Your task to perform on an android device: check google app version Image 0: 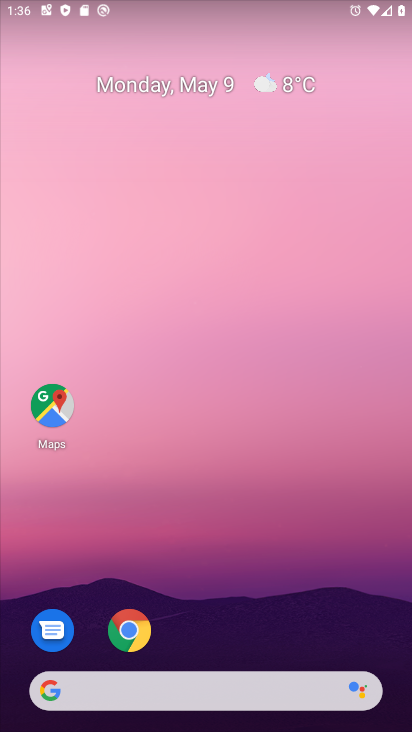
Step 0: drag from (277, 631) to (228, 71)
Your task to perform on an android device: check google app version Image 1: 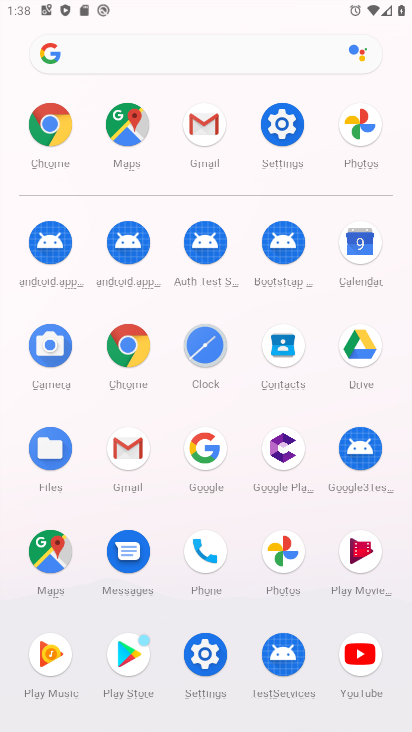
Step 1: click (201, 443)
Your task to perform on an android device: check google app version Image 2: 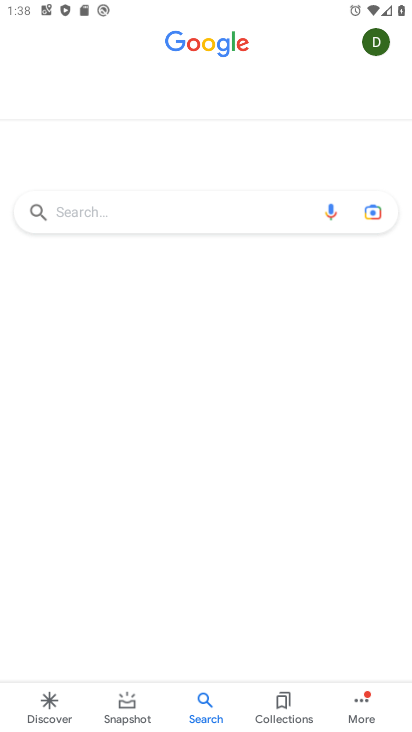
Step 2: press back button
Your task to perform on an android device: check google app version Image 3: 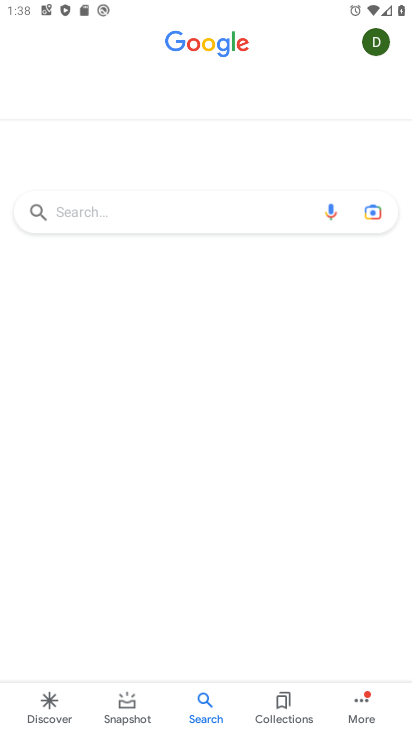
Step 3: press home button
Your task to perform on an android device: check google app version Image 4: 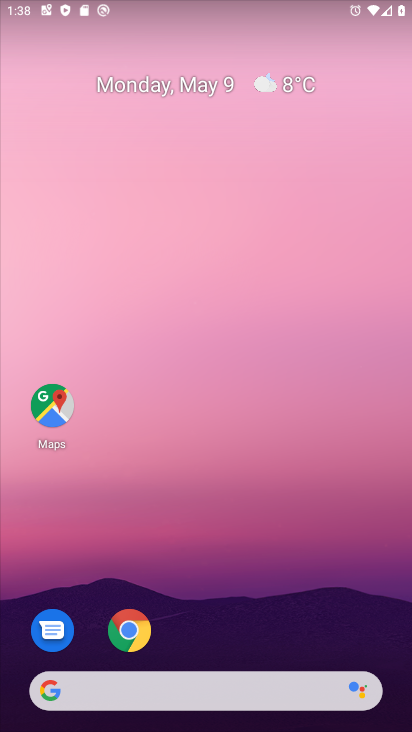
Step 4: drag from (226, 624) to (278, 60)
Your task to perform on an android device: check google app version Image 5: 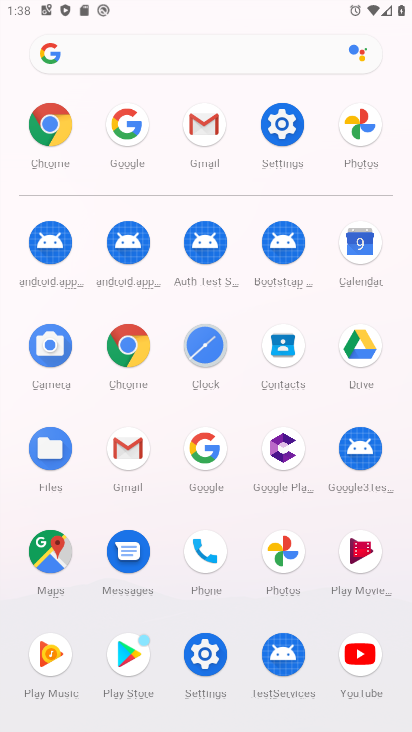
Step 5: click (194, 455)
Your task to perform on an android device: check google app version Image 6: 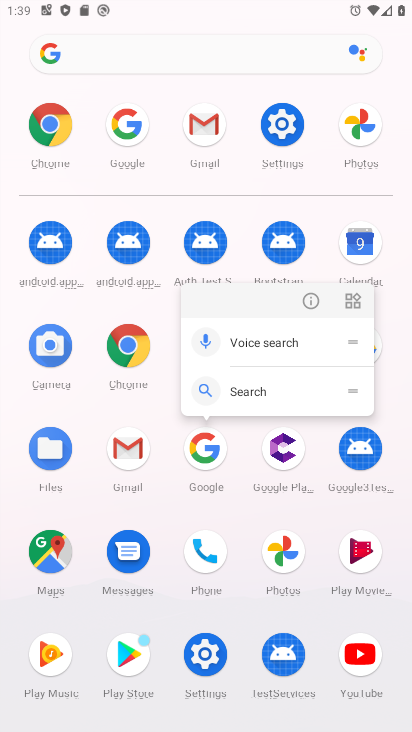
Step 6: click (308, 301)
Your task to perform on an android device: check google app version Image 7: 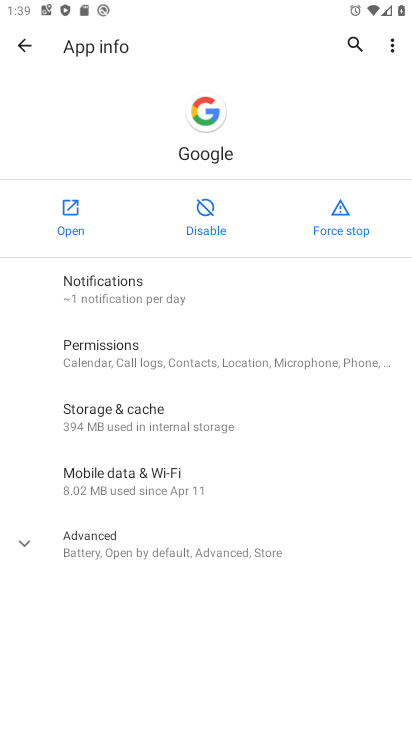
Step 7: click (35, 543)
Your task to perform on an android device: check google app version Image 8: 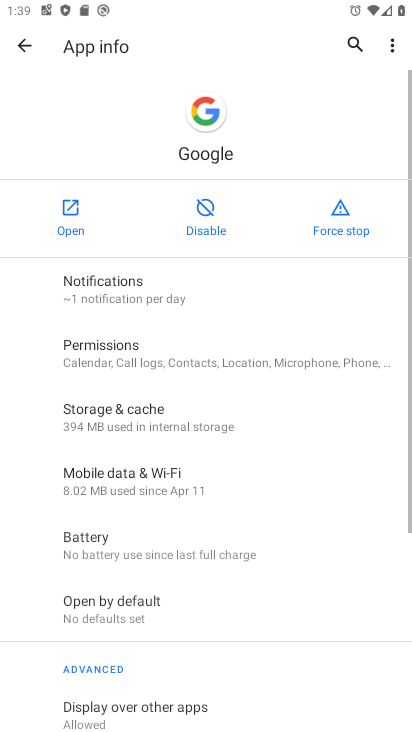
Step 8: task complete